Your task to perform on an android device: delete browsing data in the chrome app Image 0: 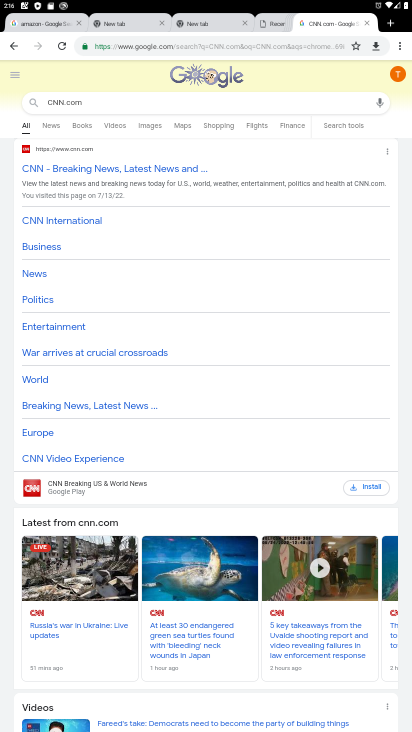
Step 0: press home button
Your task to perform on an android device: delete browsing data in the chrome app Image 1: 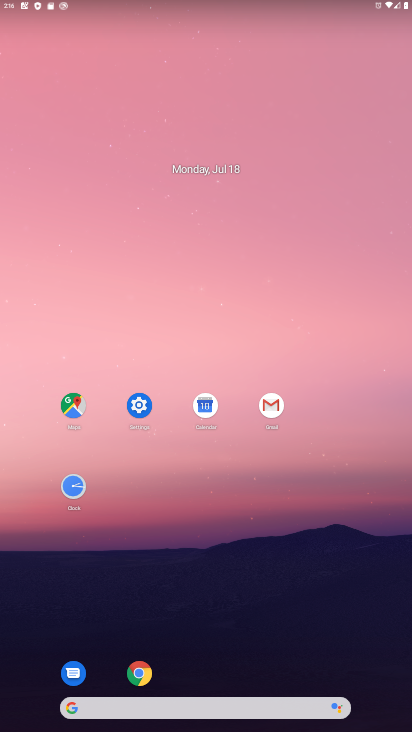
Step 1: click (131, 680)
Your task to perform on an android device: delete browsing data in the chrome app Image 2: 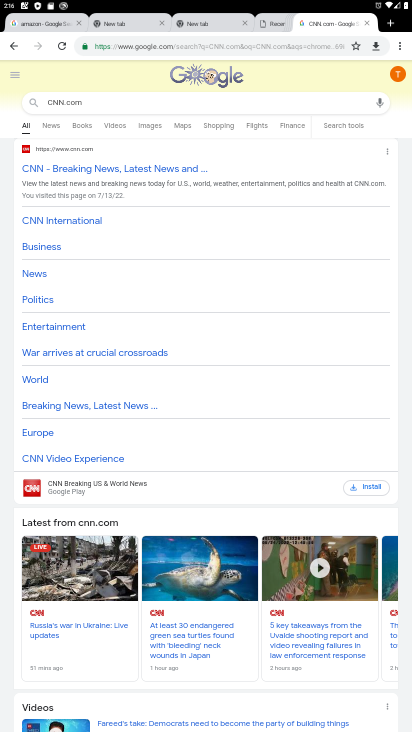
Step 2: click (399, 37)
Your task to perform on an android device: delete browsing data in the chrome app Image 3: 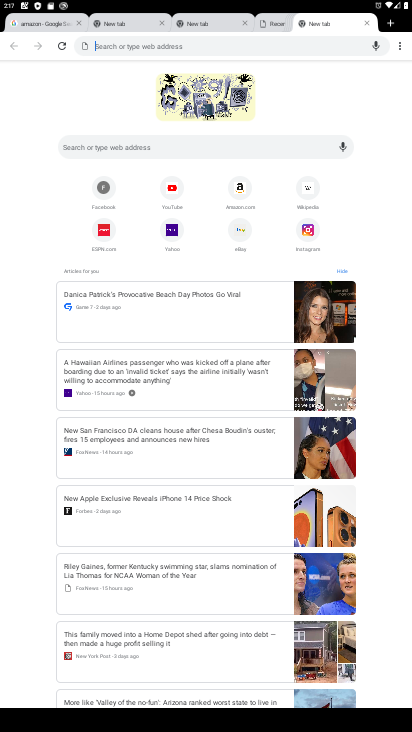
Step 3: click (394, 43)
Your task to perform on an android device: delete browsing data in the chrome app Image 4: 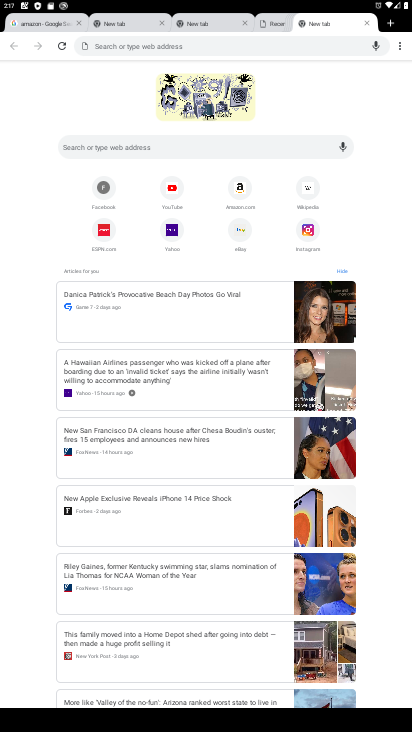
Step 4: click (401, 45)
Your task to perform on an android device: delete browsing data in the chrome app Image 5: 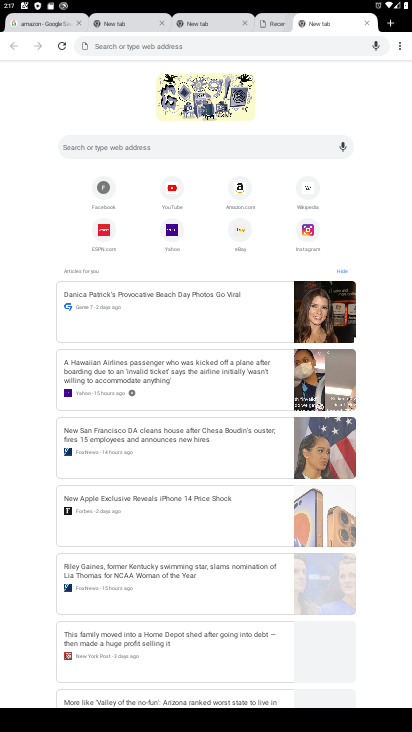
Step 5: click (401, 45)
Your task to perform on an android device: delete browsing data in the chrome app Image 6: 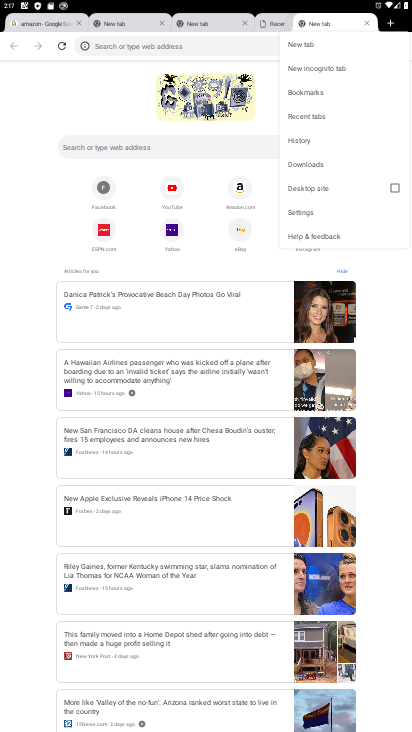
Step 6: click (291, 139)
Your task to perform on an android device: delete browsing data in the chrome app Image 7: 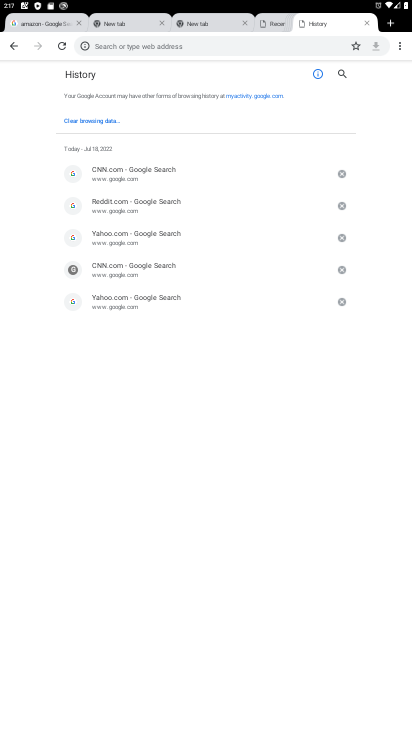
Step 7: click (99, 121)
Your task to perform on an android device: delete browsing data in the chrome app Image 8: 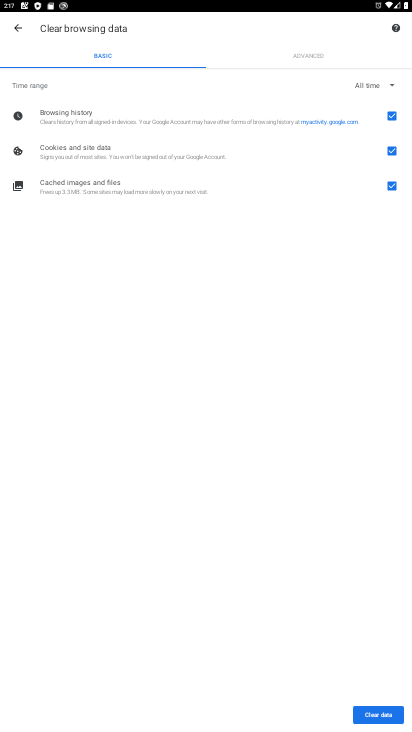
Step 8: click (386, 716)
Your task to perform on an android device: delete browsing data in the chrome app Image 9: 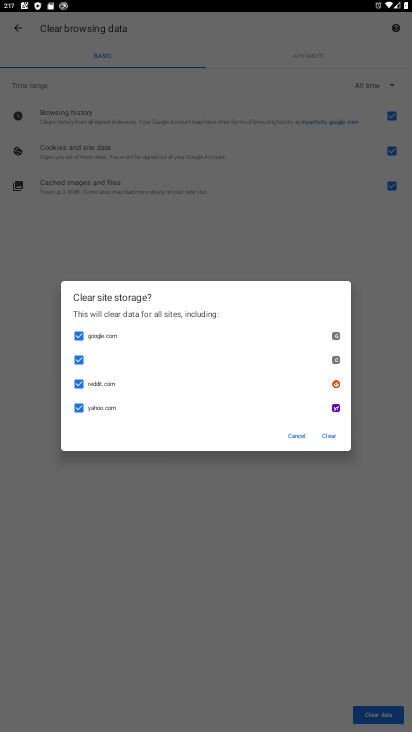
Step 9: click (331, 434)
Your task to perform on an android device: delete browsing data in the chrome app Image 10: 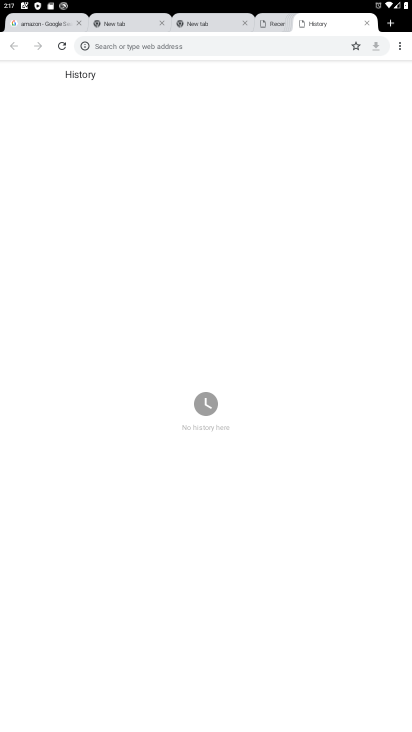
Step 10: task complete